Your task to perform on an android device: check out phone information Image 0: 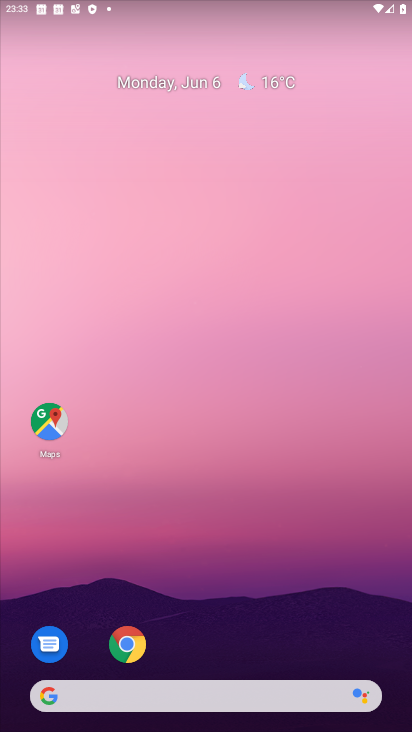
Step 0: drag from (240, 545) to (244, 40)
Your task to perform on an android device: check out phone information Image 1: 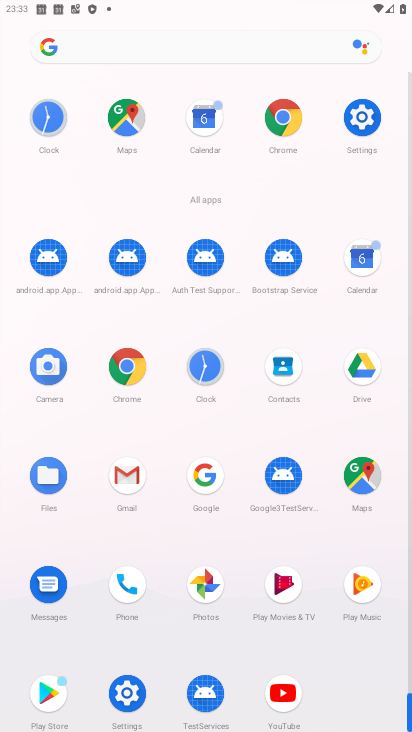
Step 1: drag from (7, 553) to (19, 198)
Your task to perform on an android device: check out phone information Image 2: 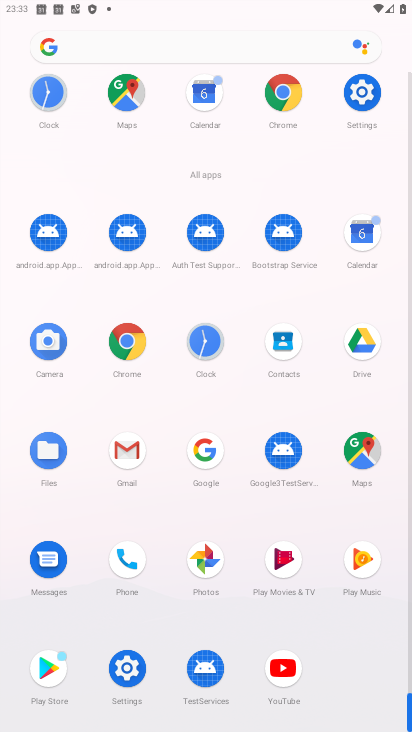
Step 2: click (127, 666)
Your task to perform on an android device: check out phone information Image 3: 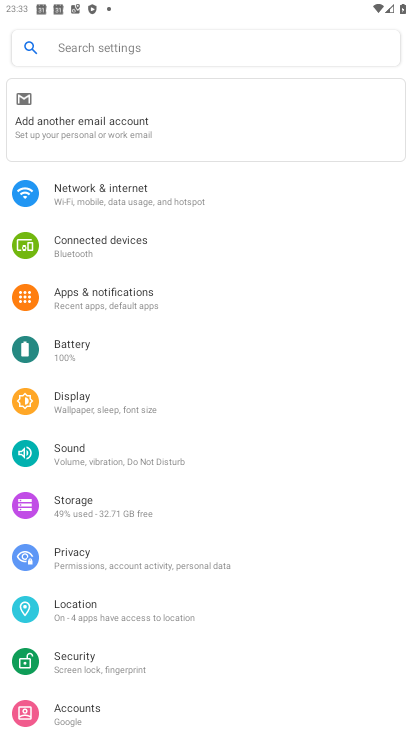
Step 3: drag from (222, 522) to (219, 169)
Your task to perform on an android device: check out phone information Image 4: 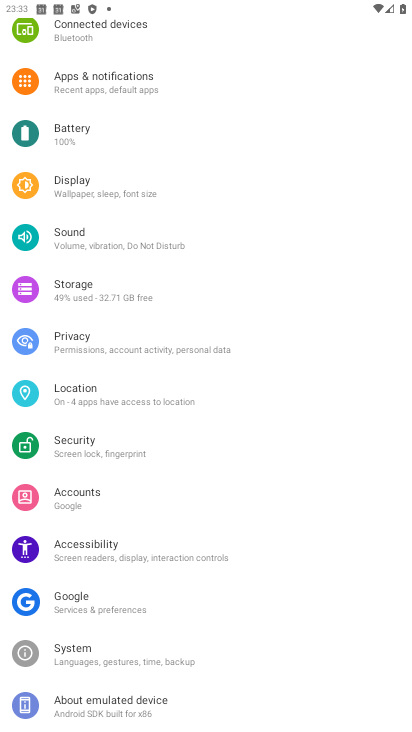
Step 4: drag from (198, 148) to (192, 578)
Your task to perform on an android device: check out phone information Image 5: 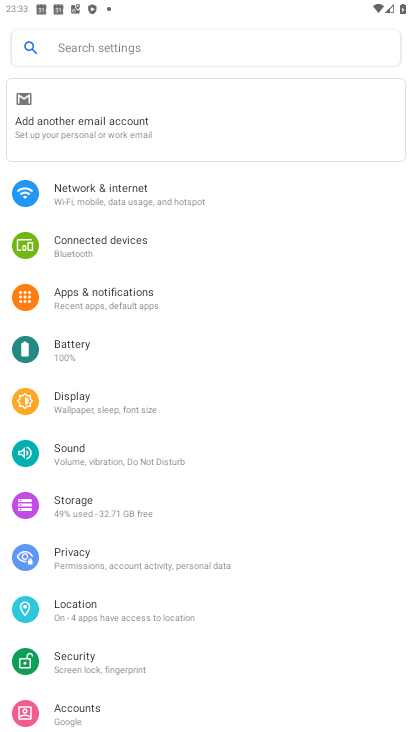
Step 5: drag from (205, 570) to (187, 152)
Your task to perform on an android device: check out phone information Image 6: 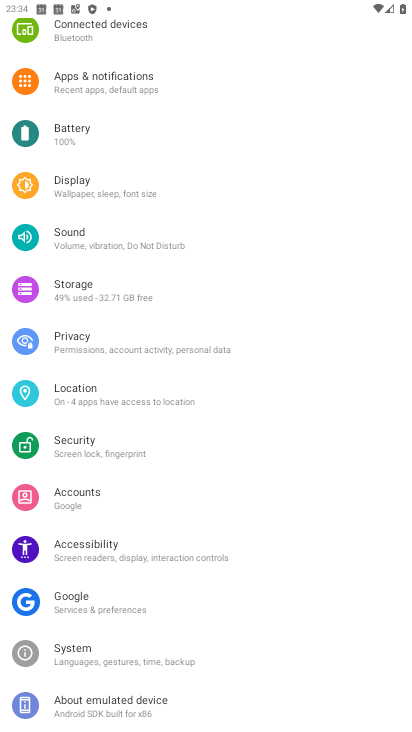
Step 6: click (111, 709)
Your task to perform on an android device: check out phone information Image 7: 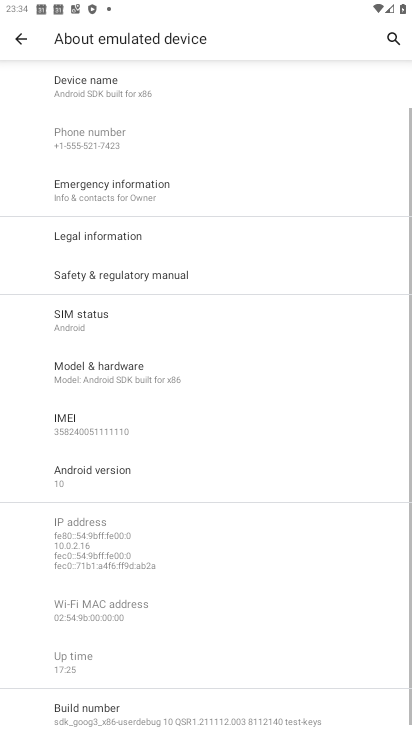
Step 7: task complete